Your task to perform on an android device: What's the weather today? Image 0: 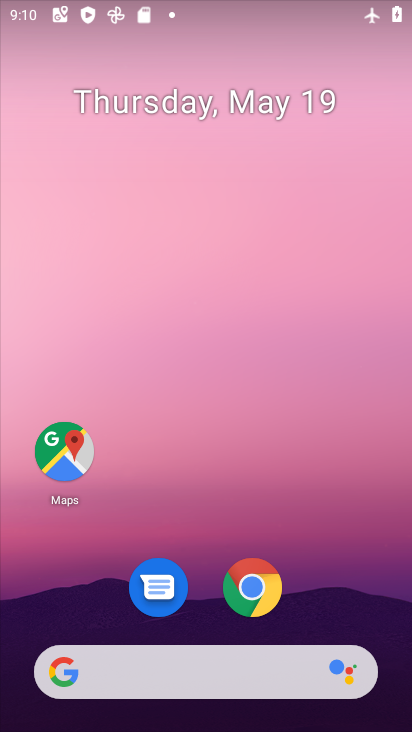
Step 0: drag from (340, 580) to (284, 51)
Your task to perform on an android device: What's the weather today? Image 1: 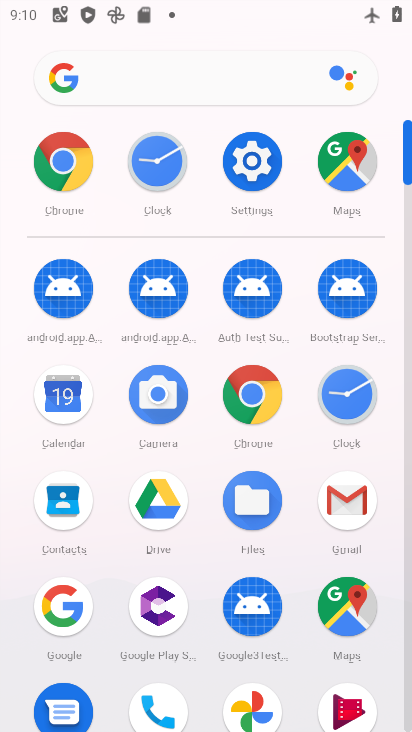
Step 1: drag from (24, 619) to (46, 287)
Your task to perform on an android device: What's the weather today? Image 2: 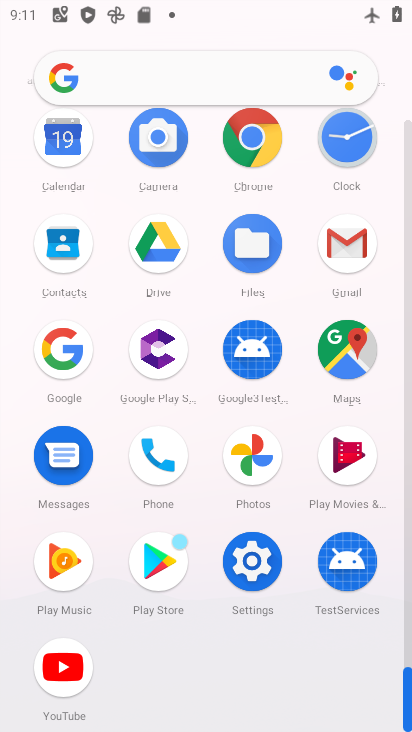
Step 2: click (250, 128)
Your task to perform on an android device: What's the weather today? Image 3: 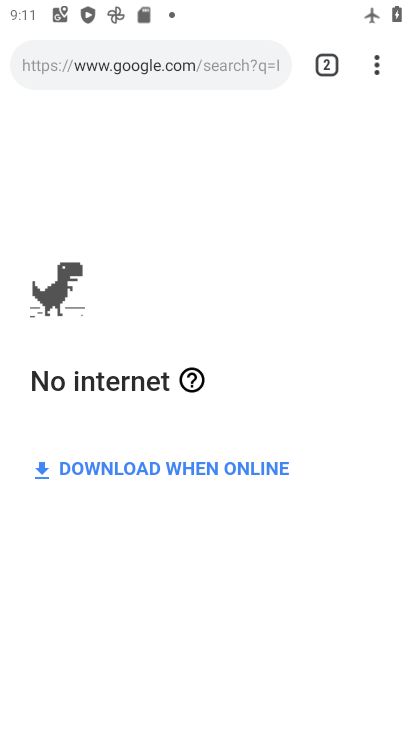
Step 3: click (124, 47)
Your task to perform on an android device: What's the weather today? Image 4: 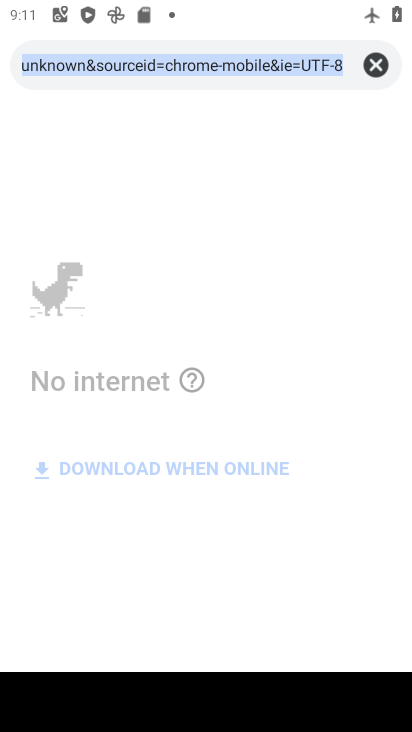
Step 4: click (380, 53)
Your task to perform on an android device: What's the weather today? Image 5: 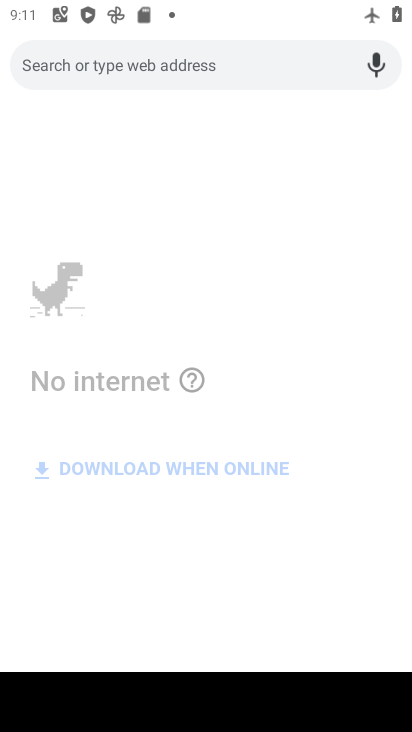
Step 5: type "What's the weather today?"
Your task to perform on an android device: What's the weather today? Image 6: 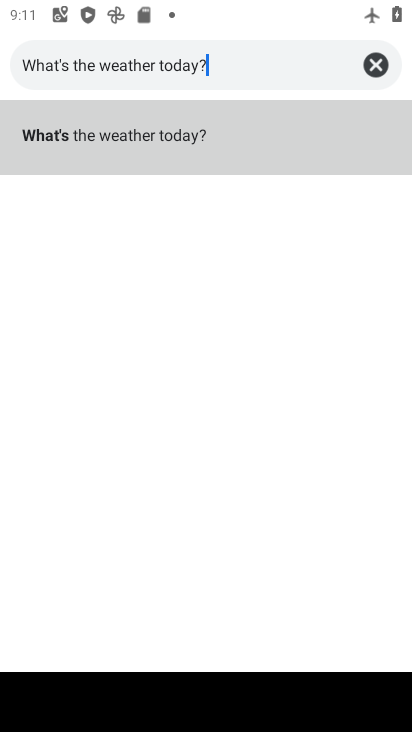
Step 6: type ""
Your task to perform on an android device: What's the weather today? Image 7: 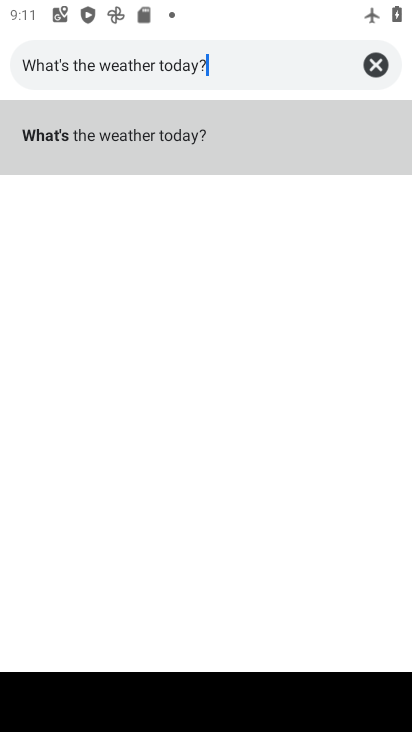
Step 7: click (296, 0)
Your task to perform on an android device: What's the weather today? Image 8: 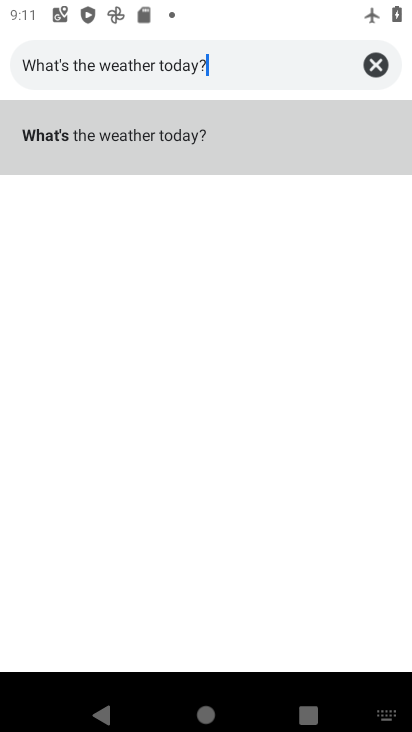
Step 8: click (261, 134)
Your task to perform on an android device: What's the weather today? Image 9: 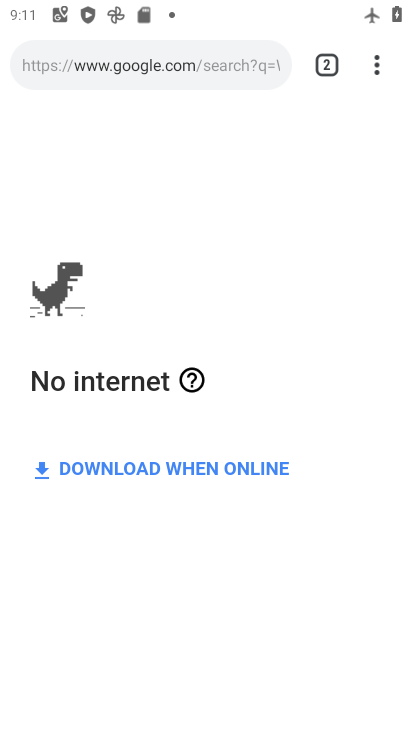
Step 9: drag from (286, 5) to (337, 427)
Your task to perform on an android device: What's the weather today? Image 10: 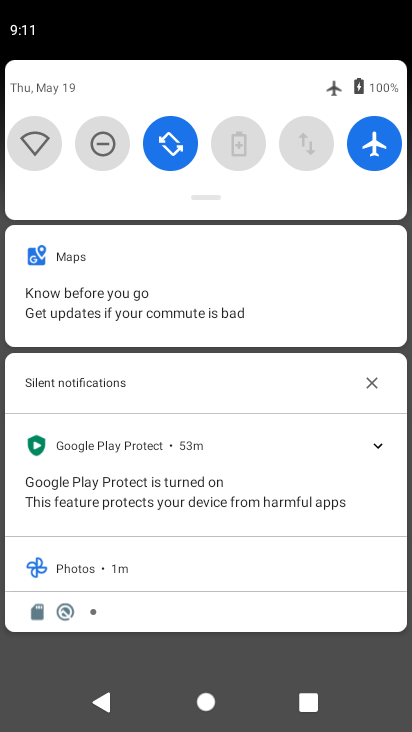
Step 10: click (35, 136)
Your task to perform on an android device: What's the weather today? Image 11: 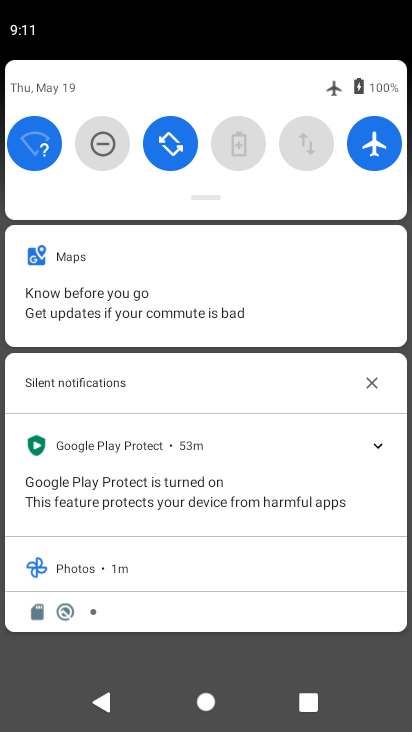
Step 11: task complete